Your task to perform on an android device: Show me popular games on the Play Store Image 0: 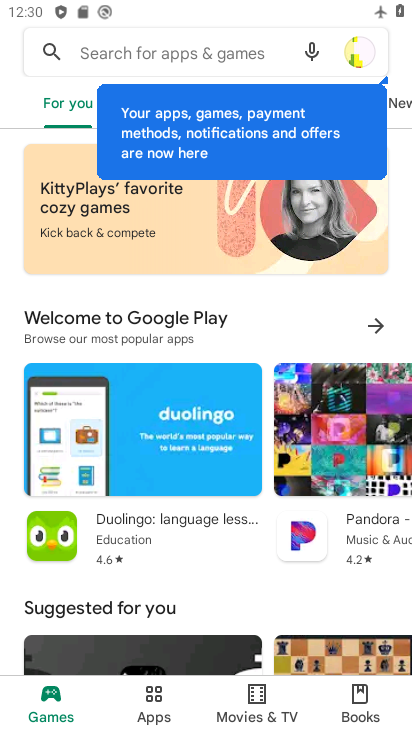
Step 0: press home button
Your task to perform on an android device: Show me popular games on the Play Store Image 1: 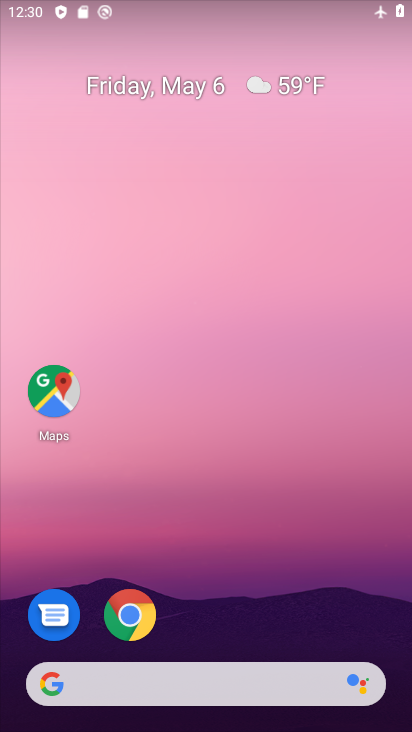
Step 1: drag from (280, 569) to (277, 50)
Your task to perform on an android device: Show me popular games on the Play Store Image 2: 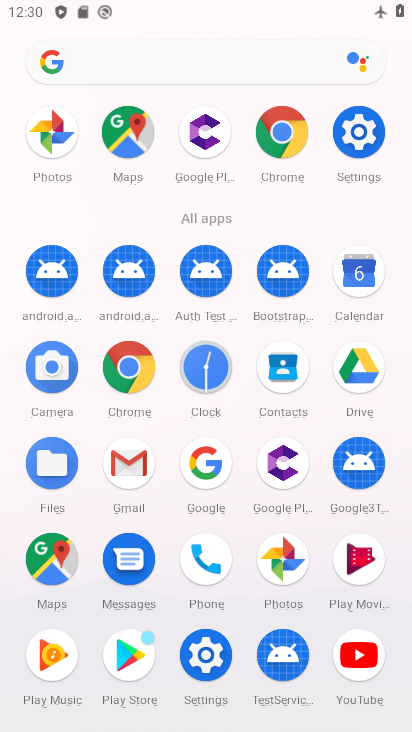
Step 2: click (125, 646)
Your task to perform on an android device: Show me popular games on the Play Store Image 3: 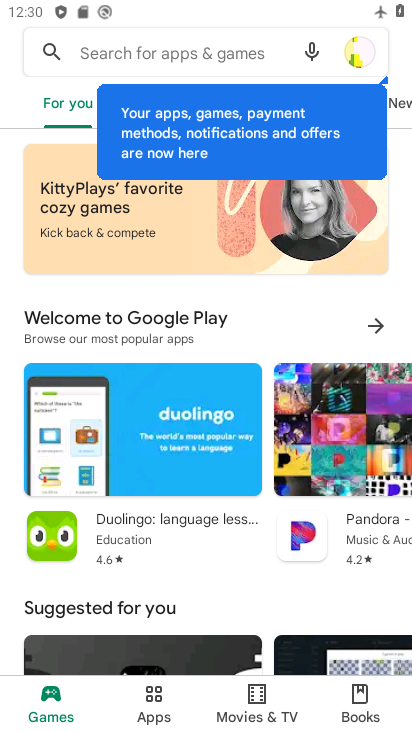
Step 3: click (49, 703)
Your task to perform on an android device: Show me popular games on the Play Store Image 4: 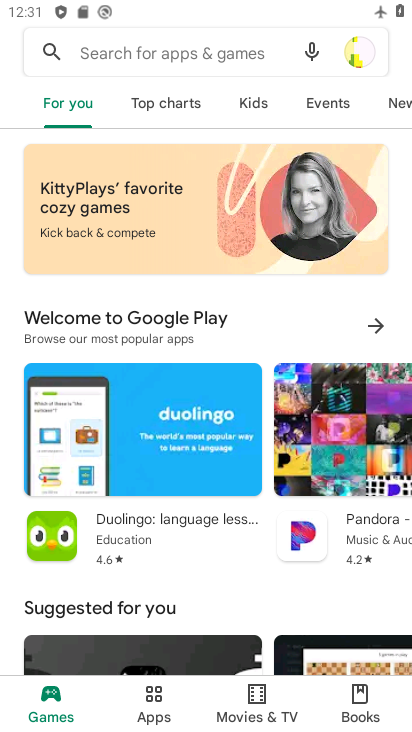
Step 4: drag from (234, 468) to (274, 159)
Your task to perform on an android device: Show me popular games on the Play Store Image 5: 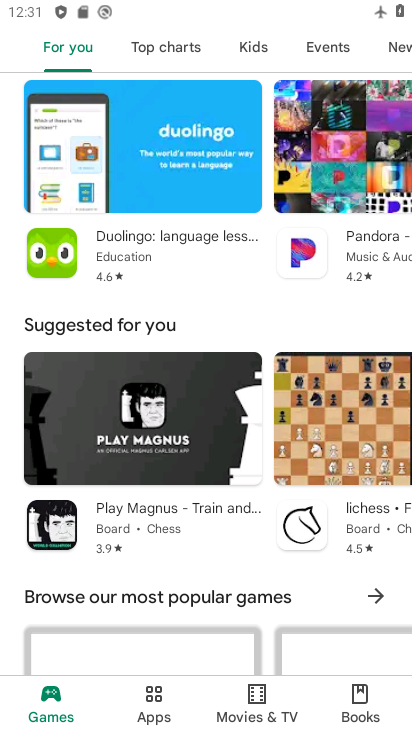
Step 5: drag from (190, 556) to (279, 229)
Your task to perform on an android device: Show me popular games on the Play Store Image 6: 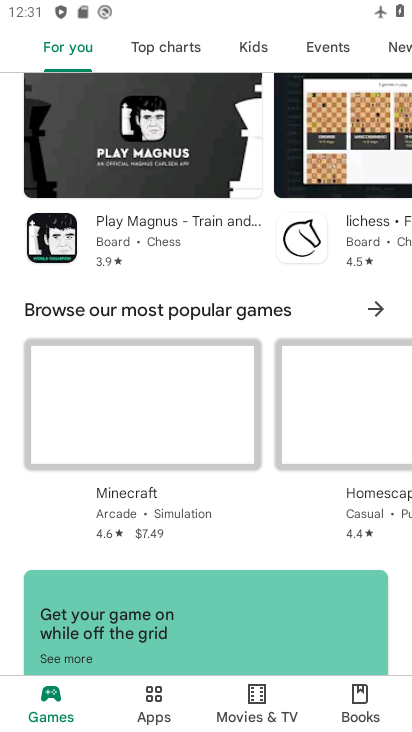
Step 6: click (375, 302)
Your task to perform on an android device: Show me popular games on the Play Store Image 7: 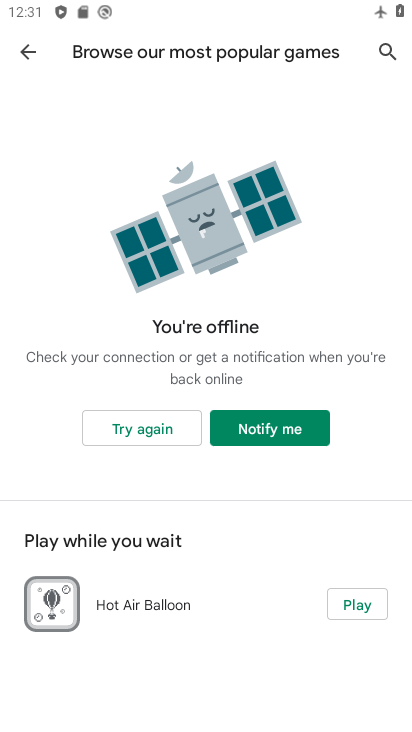
Step 7: task complete